Your task to perform on an android device: Go to notification settings Image 0: 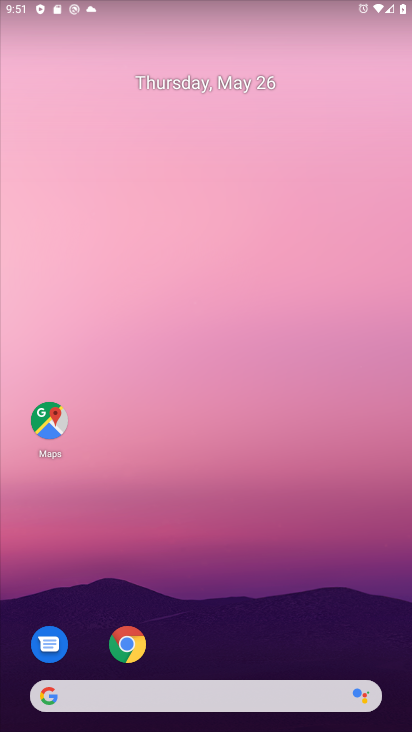
Step 0: drag from (215, 654) to (222, 211)
Your task to perform on an android device: Go to notification settings Image 1: 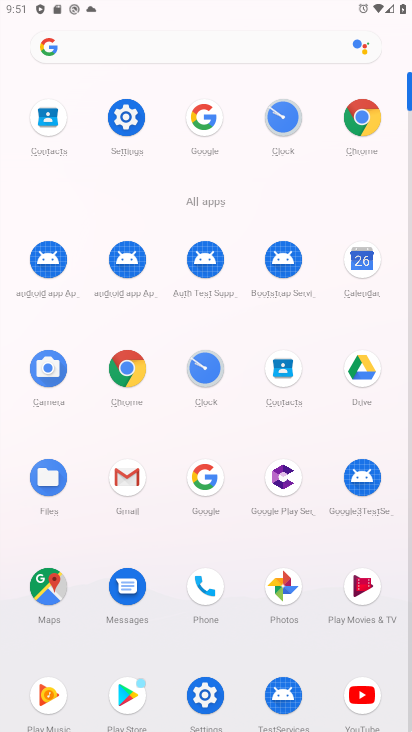
Step 1: click (135, 116)
Your task to perform on an android device: Go to notification settings Image 2: 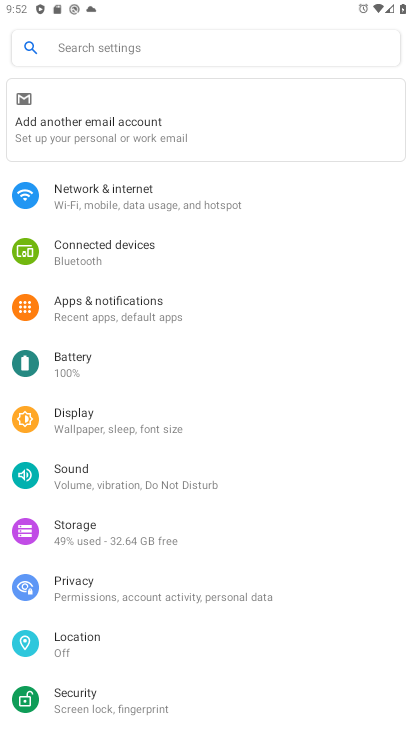
Step 2: click (191, 293)
Your task to perform on an android device: Go to notification settings Image 3: 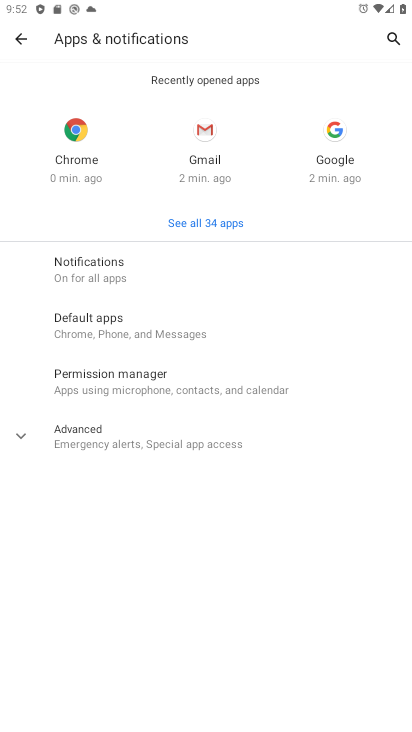
Step 3: click (159, 269)
Your task to perform on an android device: Go to notification settings Image 4: 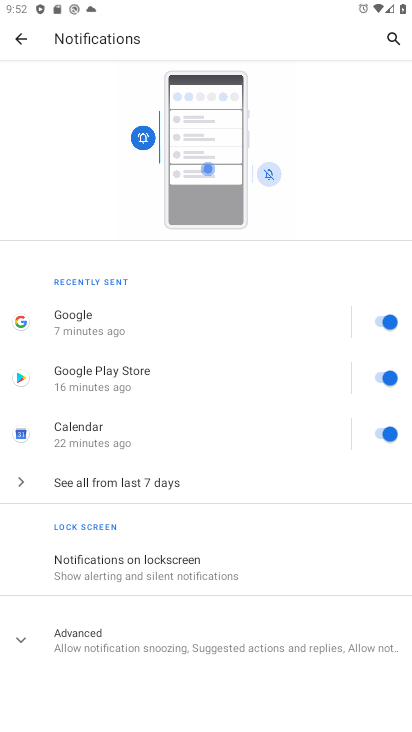
Step 4: task complete